Your task to perform on an android device: Open network settings Image 0: 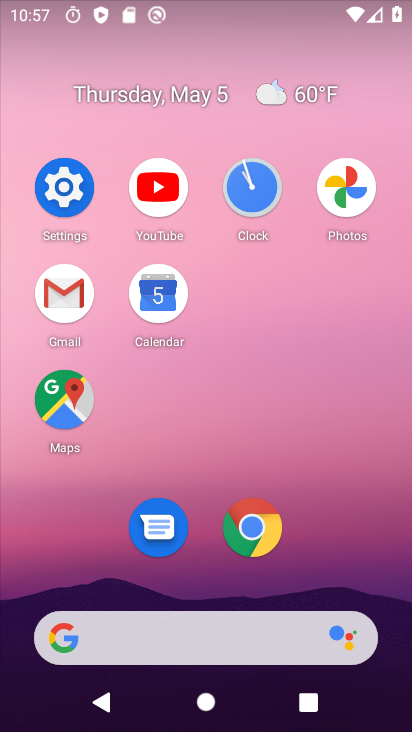
Step 0: click (74, 185)
Your task to perform on an android device: Open network settings Image 1: 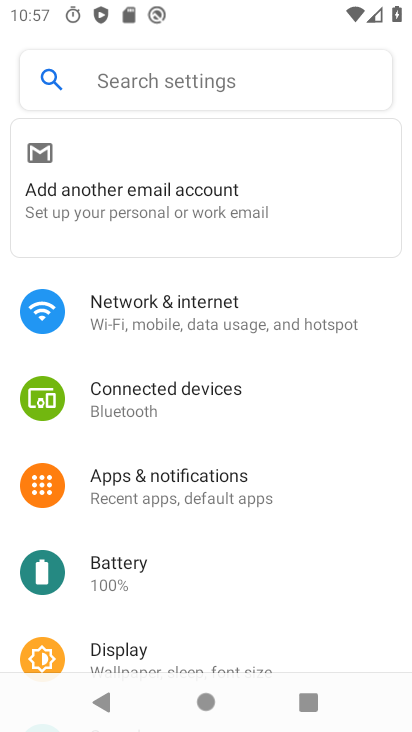
Step 1: click (204, 305)
Your task to perform on an android device: Open network settings Image 2: 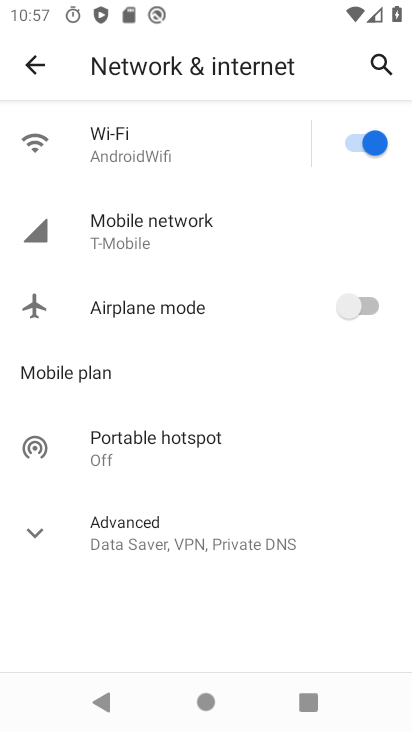
Step 2: click (194, 260)
Your task to perform on an android device: Open network settings Image 3: 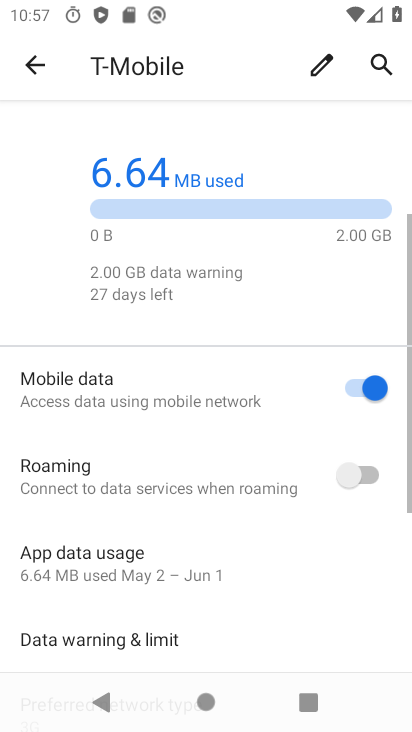
Step 3: task complete